Your task to perform on an android device: Search for seafood restaurants on Google Maps Image 0: 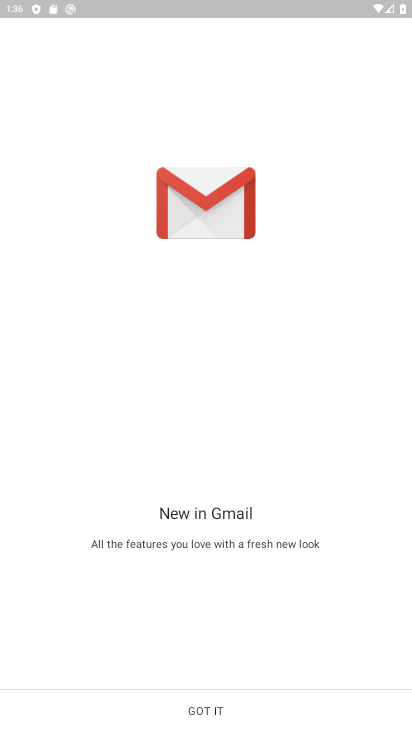
Step 0: press home button
Your task to perform on an android device: Search for seafood restaurants on Google Maps Image 1: 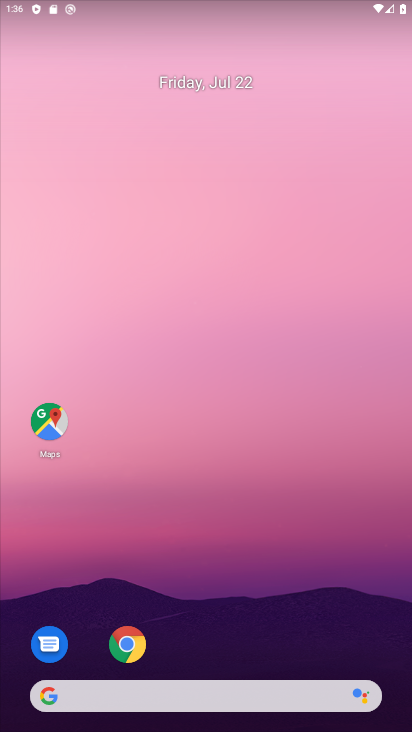
Step 1: click (40, 420)
Your task to perform on an android device: Search for seafood restaurants on Google Maps Image 2: 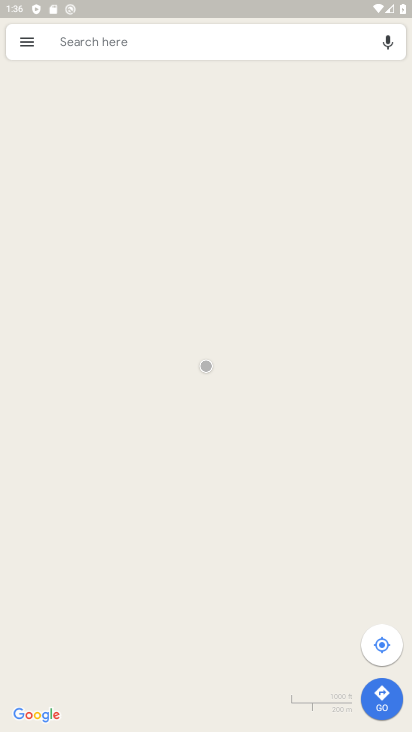
Step 2: click (129, 41)
Your task to perform on an android device: Search for seafood restaurants on Google Maps Image 3: 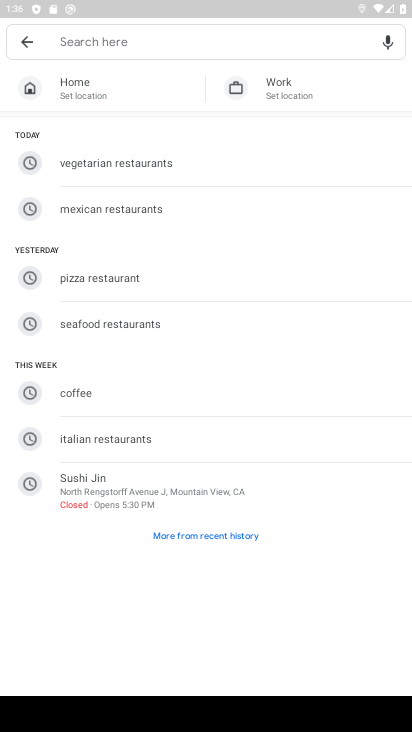
Step 3: click (148, 324)
Your task to perform on an android device: Search for seafood restaurants on Google Maps Image 4: 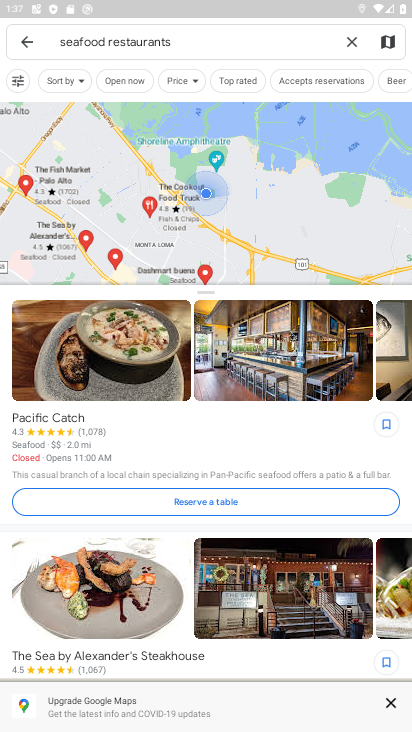
Step 4: task complete